Your task to perform on an android device: turn off picture-in-picture Image 0: 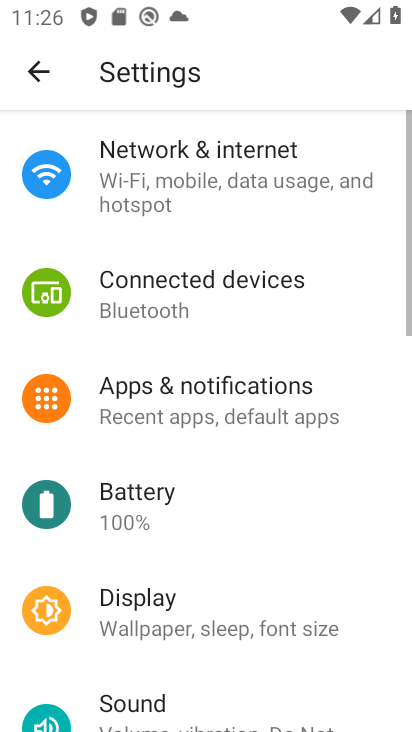
Step 0: press home button
Your task to perform on an android device: turn off picture-in-picture Image 1: 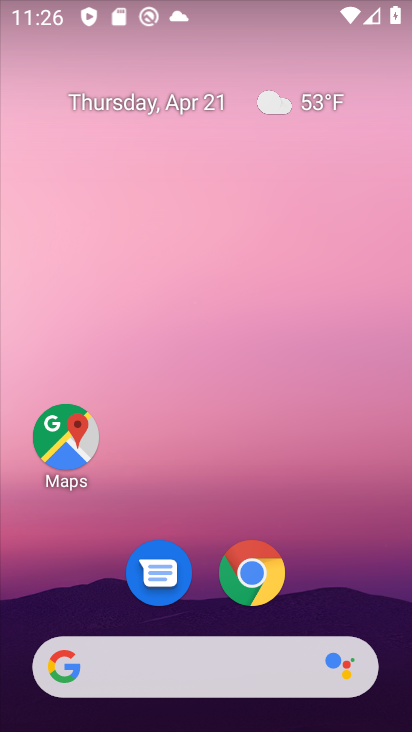
Step 1: click (251, 574)
Your task to perform on an android device: turn off picture-in-picture Image 2: 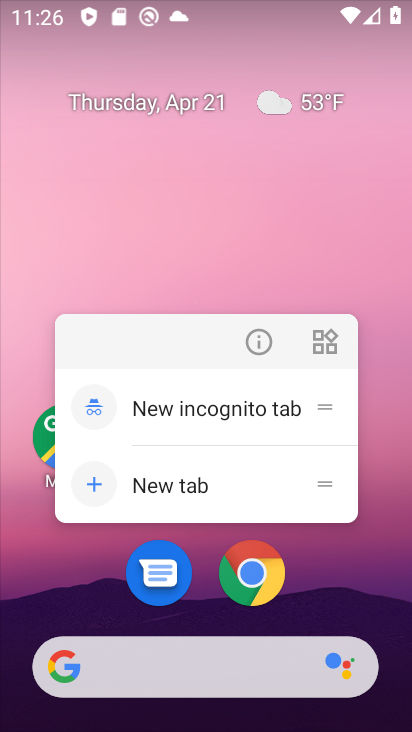
Step 2: click (257, 341)
Your task to perform on an android device: turn off picture-in-picture Image 3: 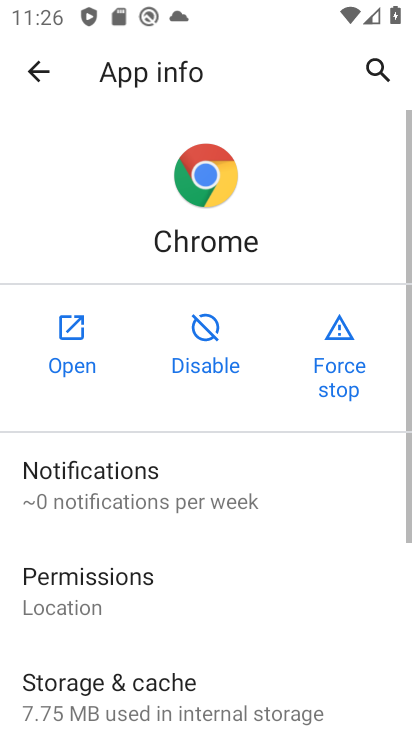
Step 3: drag from (205, 662) to (290, 209)
Your task to perform on an android device: turn off picture-in-picture Image 4: 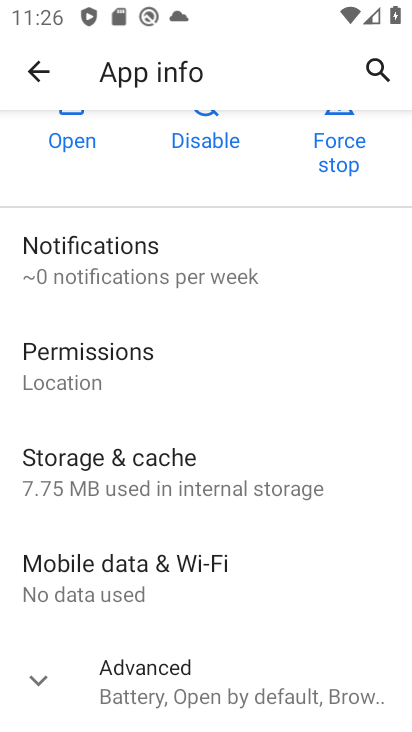
Step 4: click (102, 674)
Your task to perform on an android device: turn off picture-in-picture Image 5: 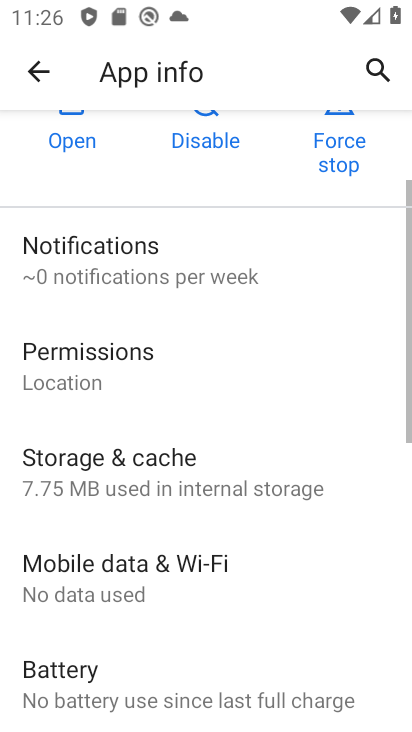
Step 5: drag from (139, 634) to (340, 83)
Your task to perform on an android device: turn off picture-in-picture Image 6: 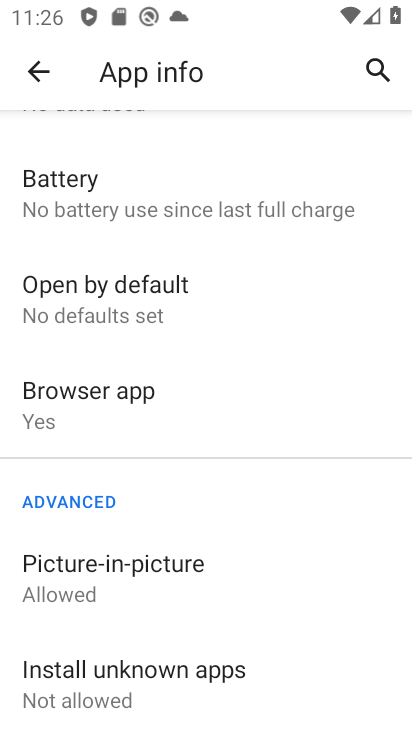
Step 6: click (155, 564)
Your task to perform on an android device: turn off picture-in-picture Image 7: 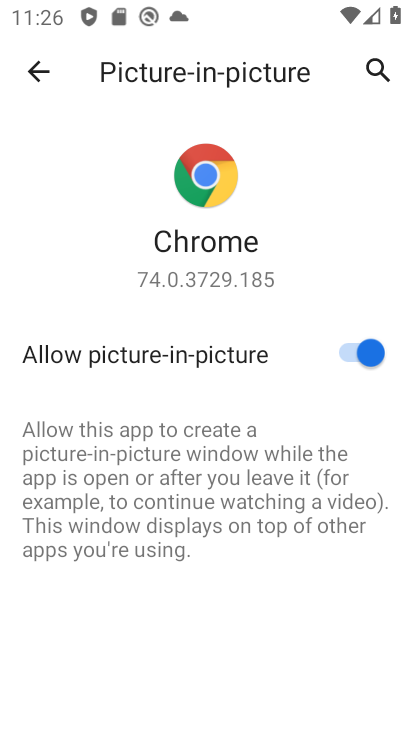
Step 7: click (351, 348)
Your task to perform on an android device: turn off picture-in-picture Image 8: 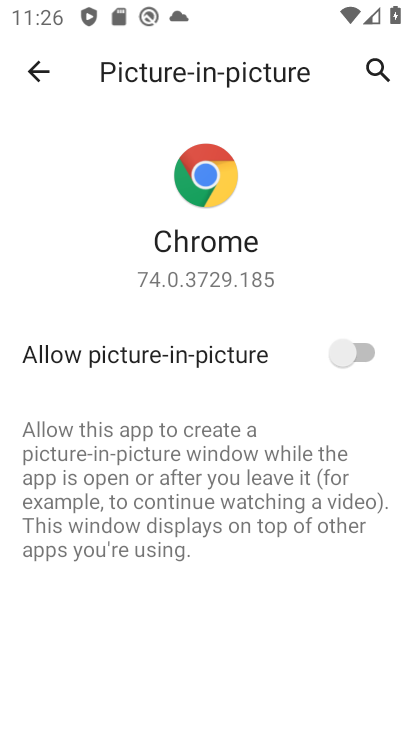
Step 8: task complete